Your task to perform on an android device: find photos in the google photos app Image 0: 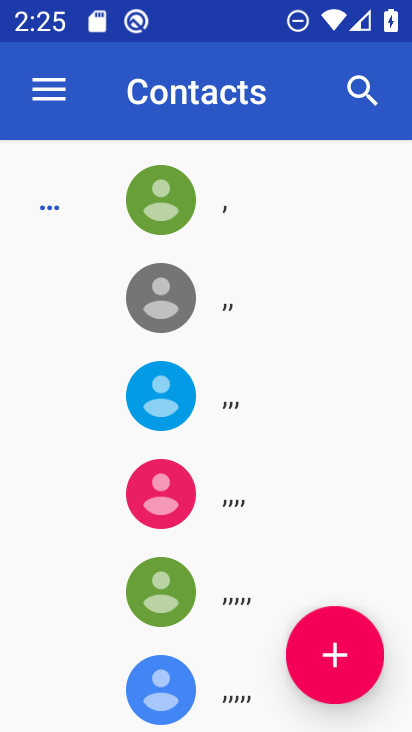
Step 0: press home button
Your task to perform on an android device: find photos in the google photos app Image 1: 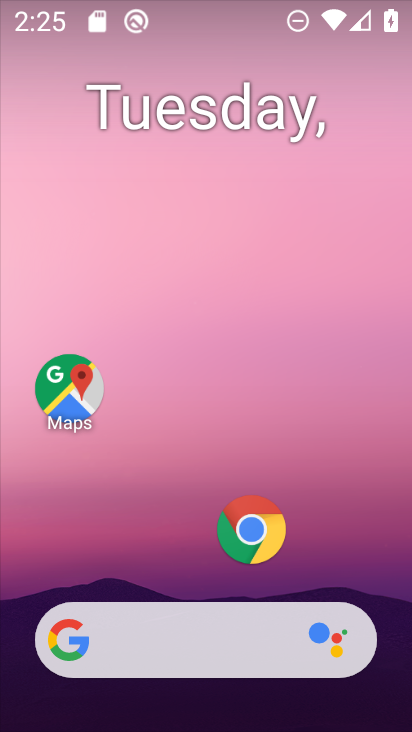
Step 1: drag from (200, 690) to (279, 214)
Your task to perform on an android device: find photos in the google photos app Image 2: 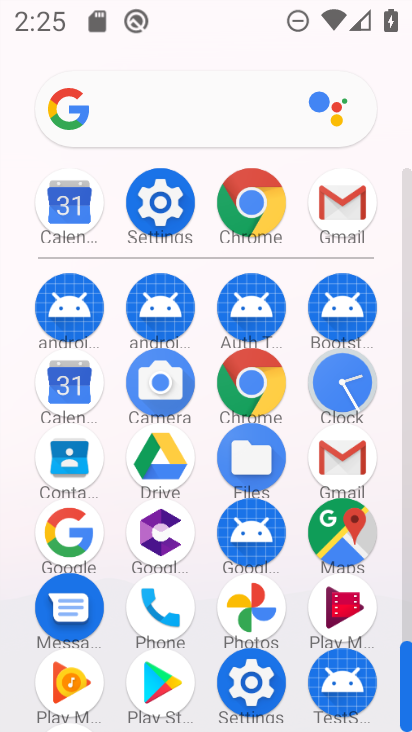
Step 2: click (247, 619)
Your task to perform on an android device: find photos in the google photos app Image 3: 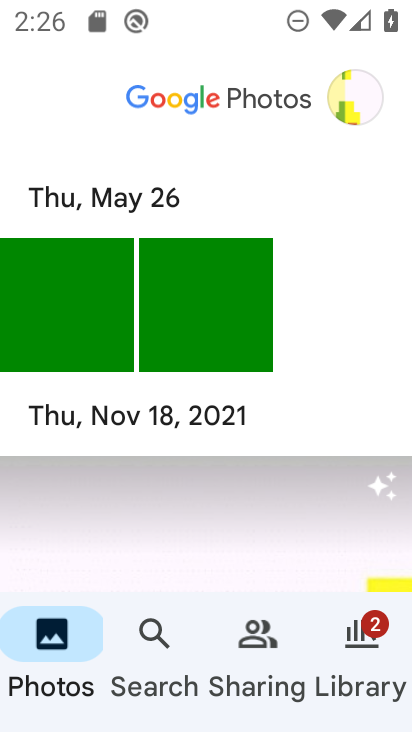
Step 3: task complete